Your task to perform on an android device: change the upload size in google photos Image 0: 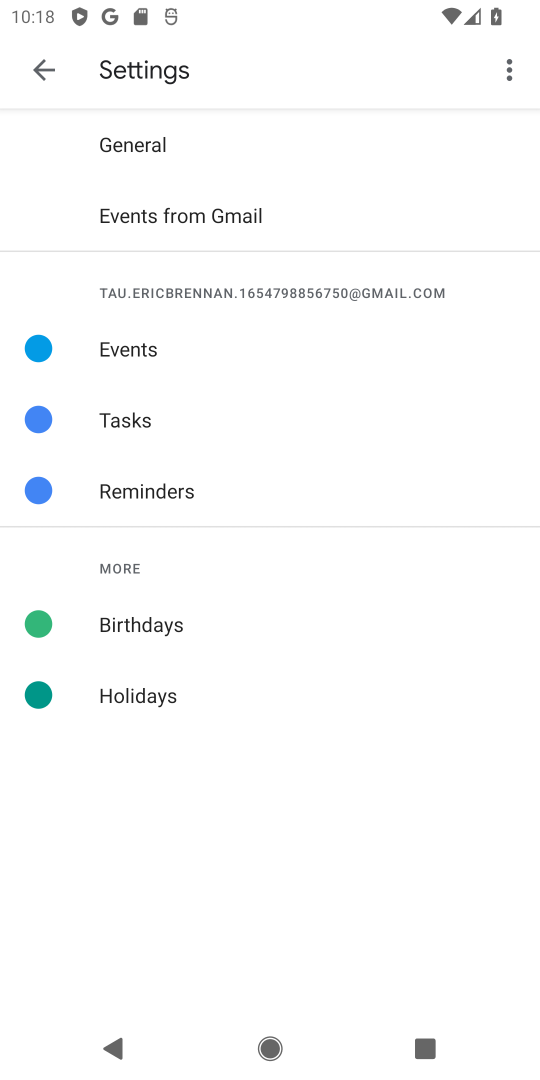
Step 0: press home button
Your task to perform on an android device: change the upload size in google photos Image 1: 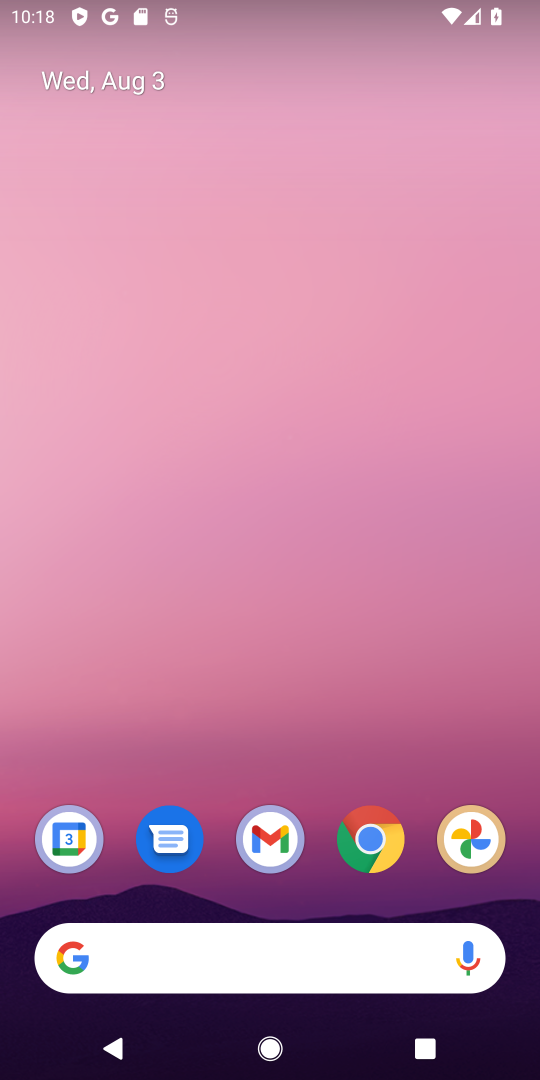
Step 1: drag from (279, 887) to (286, 270)
Your task to perform on an android device: change the upload size in google photos Image 2: 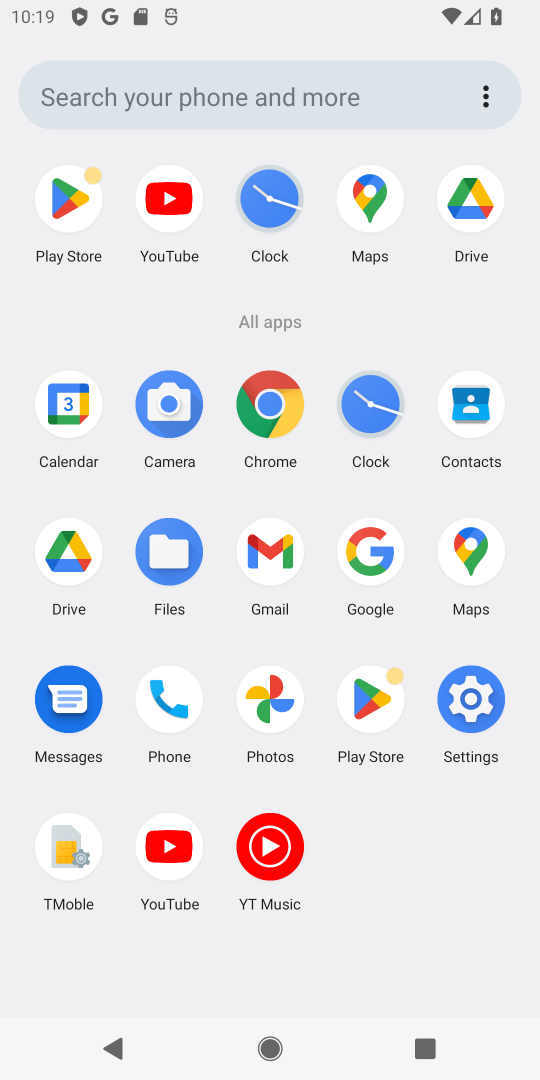
Step 2: click (255, 722)
Your task to perform on an android device: change the upload size in google photos Image 3: 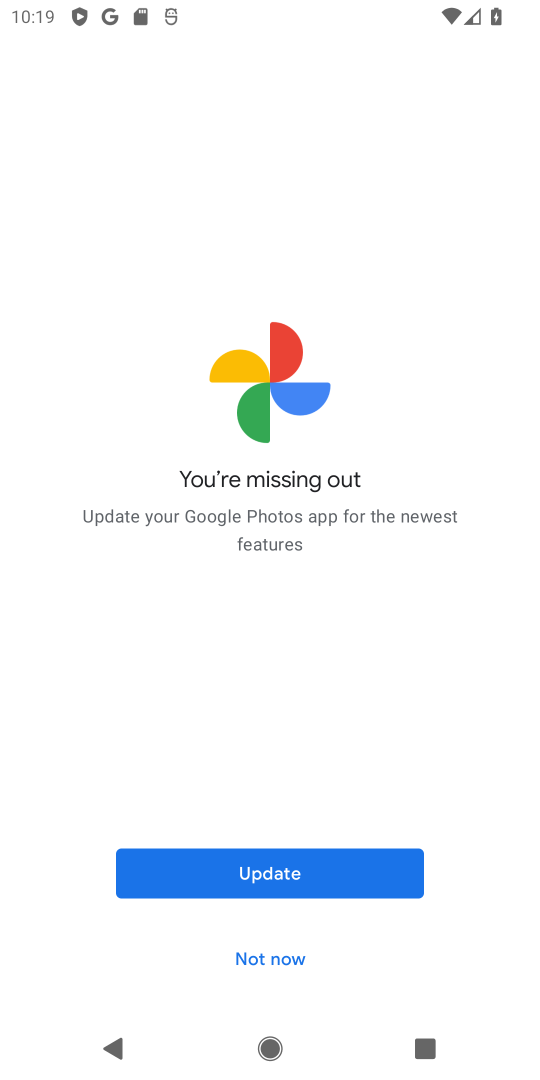
Step 3: click (282, 963)
Your task to perform on an android device: change the upload size in google photos Image 4: 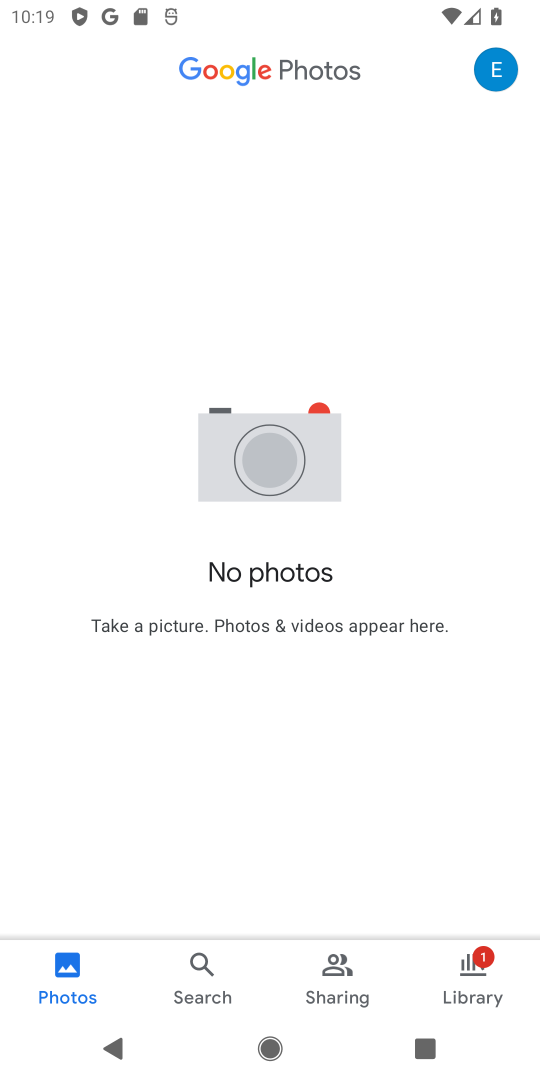
Step 4: click (496, 59)
Your task to perform on an android device: change the upload size in google photos Image 5: 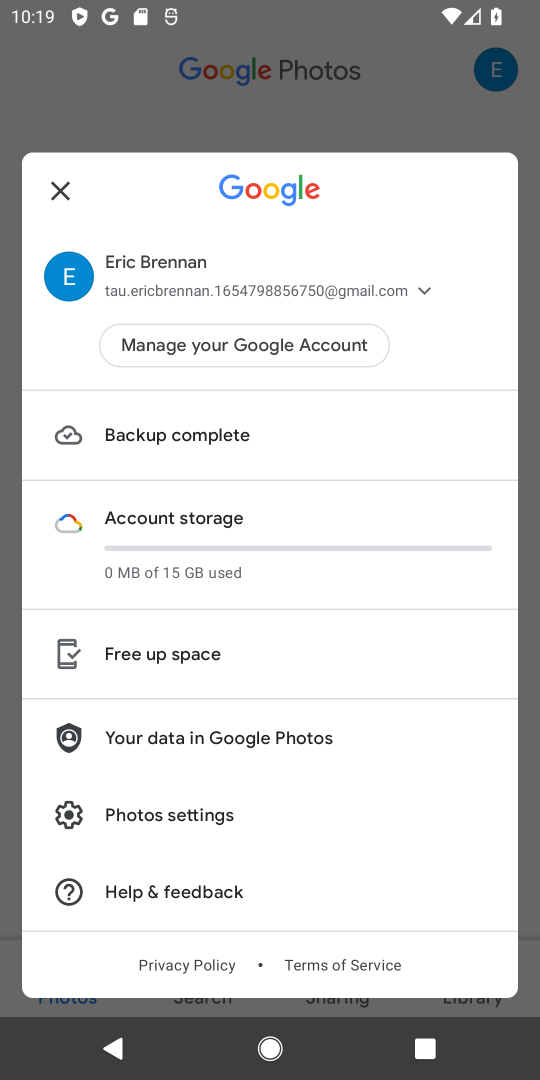
Step 5: drag from (187, 837) to (188, 705)
Your task to perform on an android device: change the upload size in google photos Image 6: 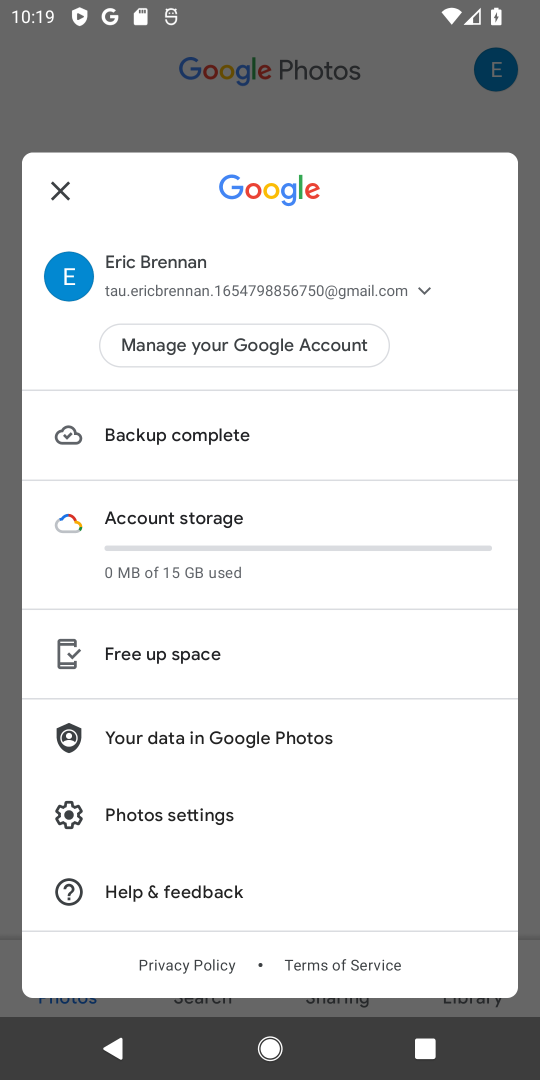
Step 6: click (149, 819)
Your task to perform on an android device: change the upload size in google photos Image 7: 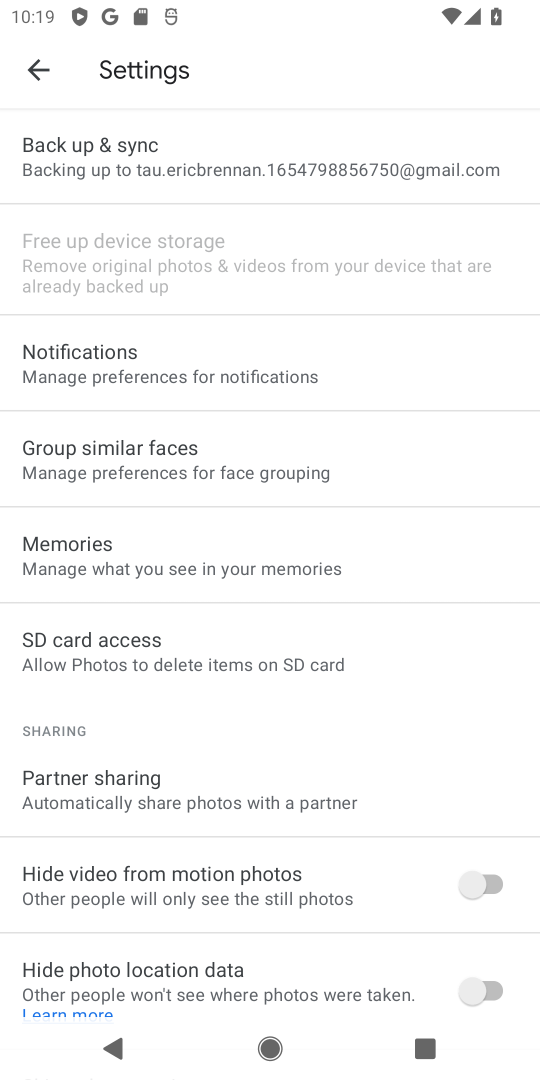
Step 7: click (114, 177)
Your task to perform on an android device: change the upload size in google photos Image 8: 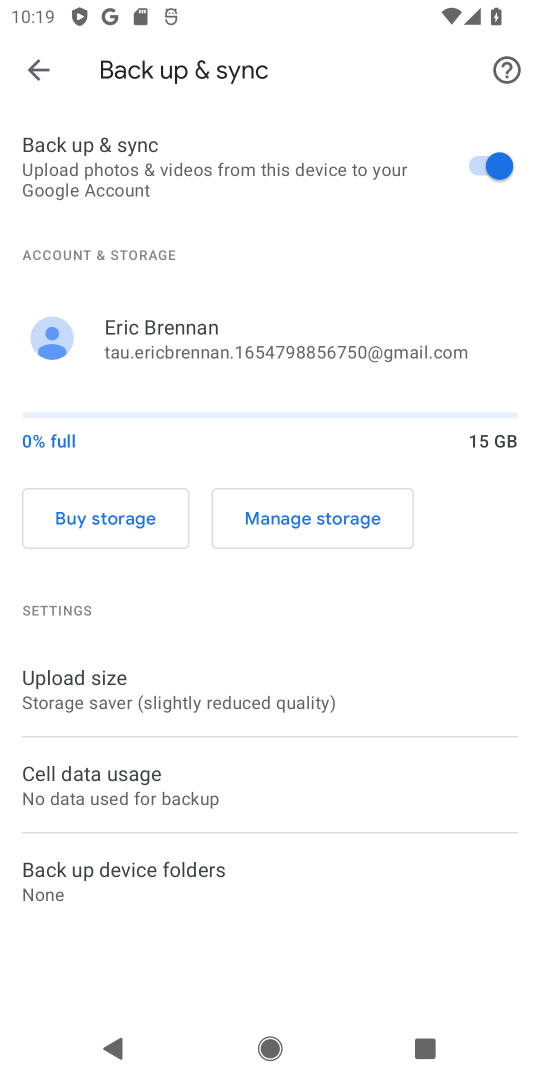
Step 8: click (146, 690)
Your task to perform on an android device: change the upload size in google photos Image 9: 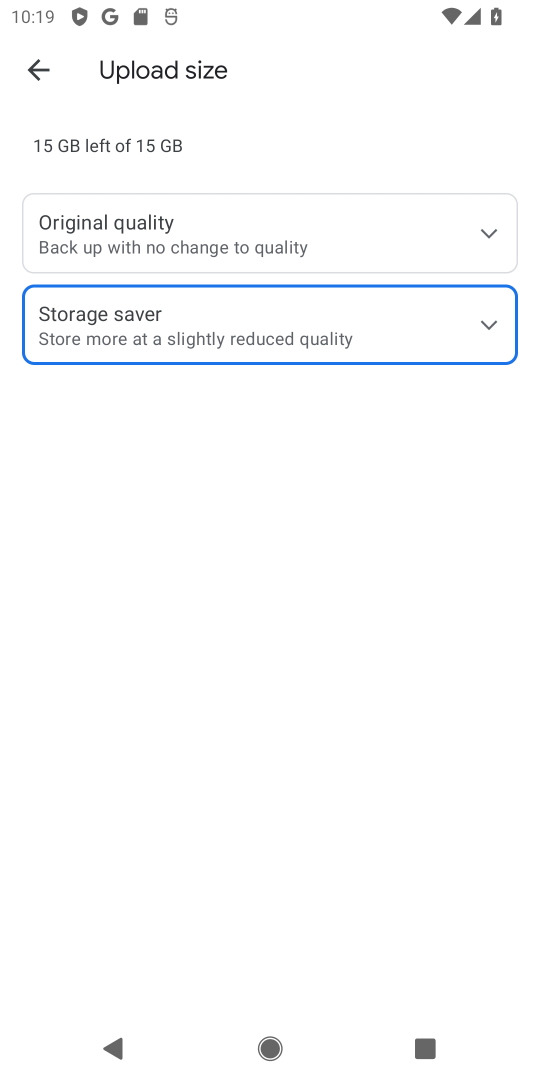
Step 9: click (122, 218)
Your task to perform on an android device: change the upload size in google photos Image 10: 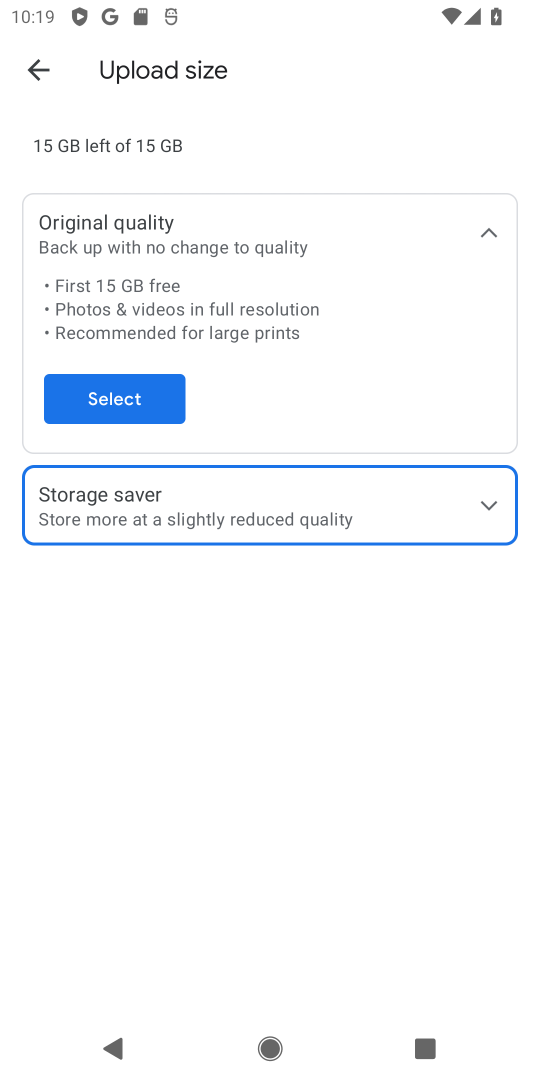
Step 10: click (114, 391)
Your task to perform on an android device: change the upload size in google photos Image 11: 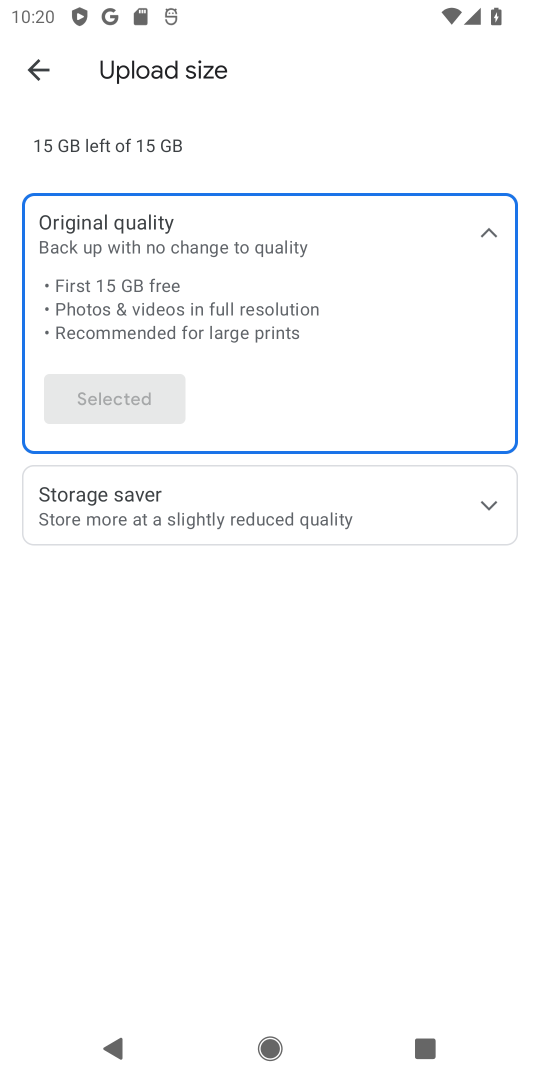
Step 11: task complete